Your task to perform on an android device: open device folders in google photos Image 0: 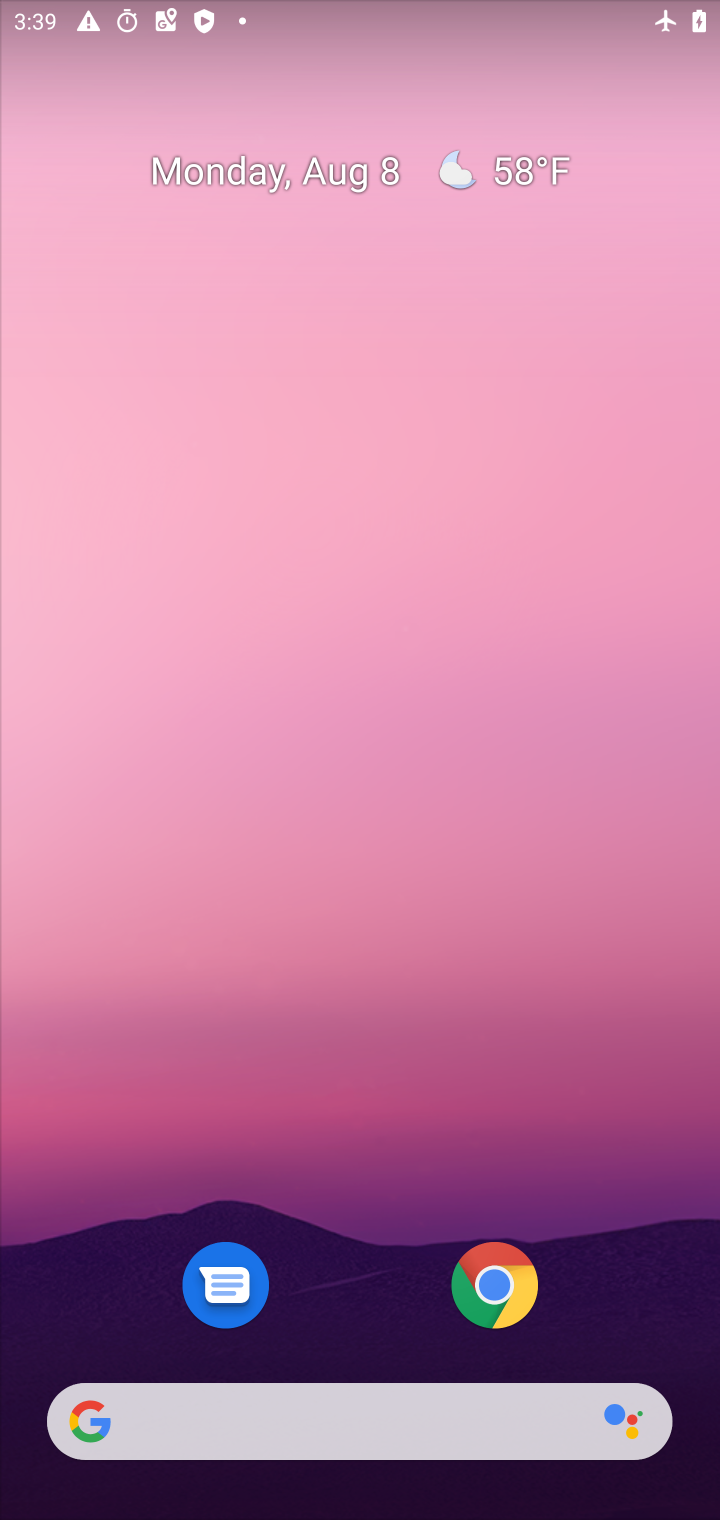
Step 0: drag from (412, 1100) to (495, 64)
Your task to perform on an android device: open device folders in google photos Image 1: 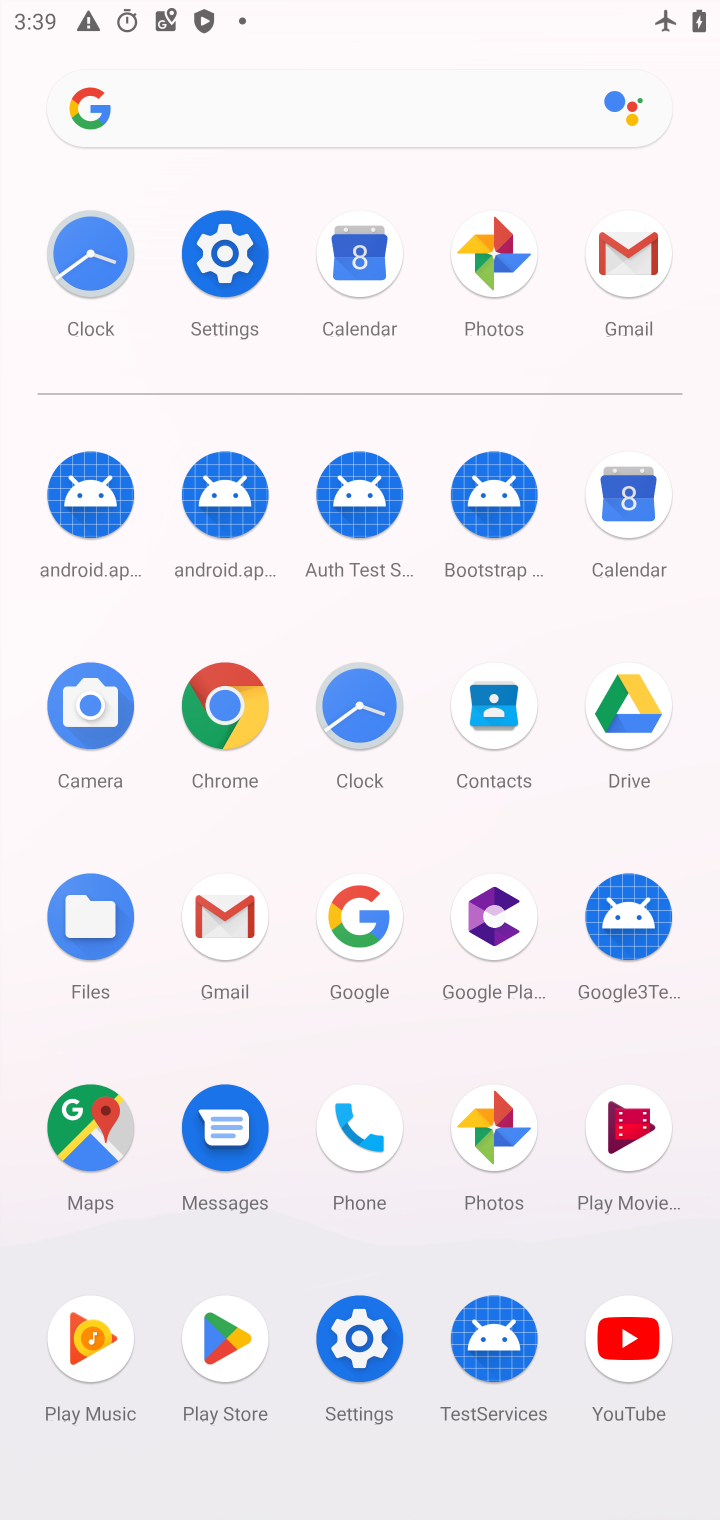
Step 1: click (515, 1122)
Your task to perform on an android device: open device folders in google photos Image 2: 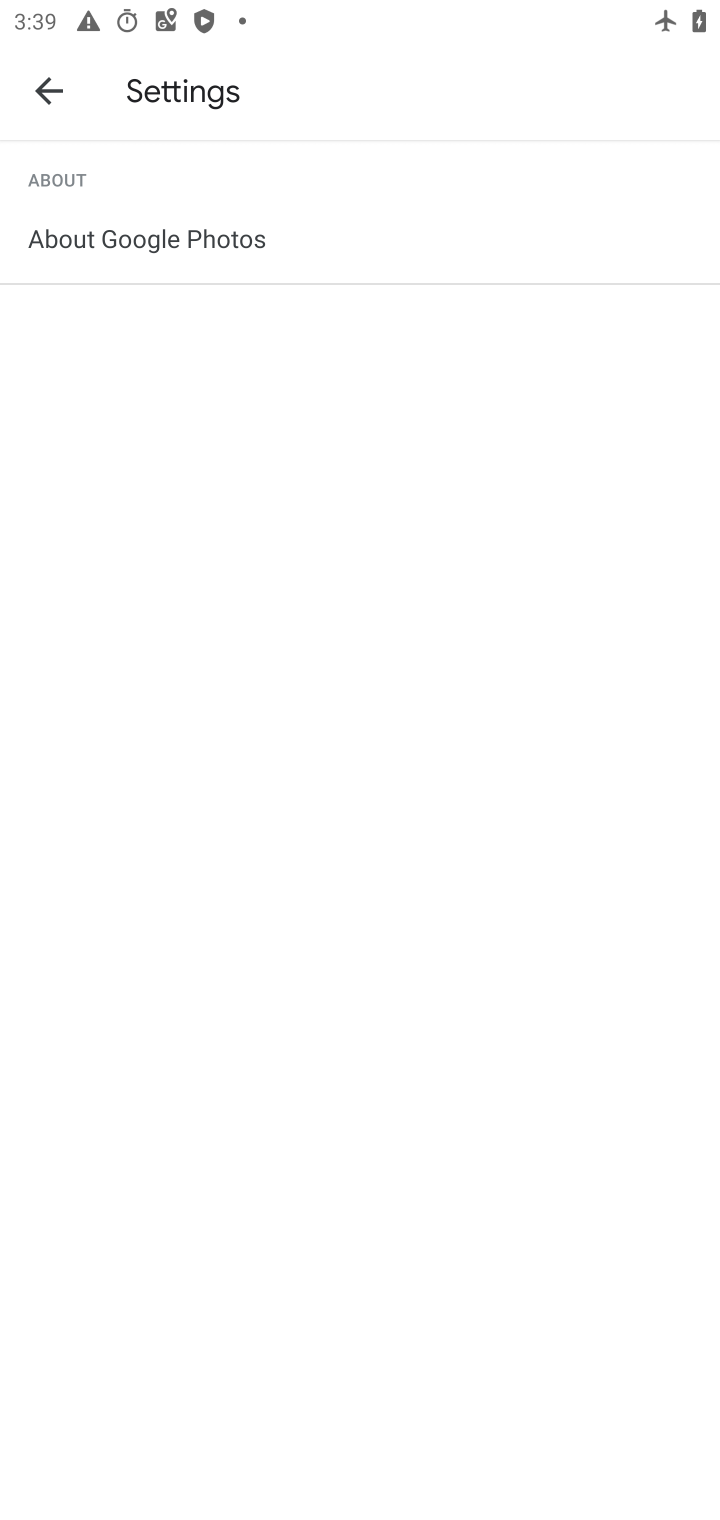
Step 2: click (38, 91)
Your task to perform on an android device: open device folders in google photos Image 3: 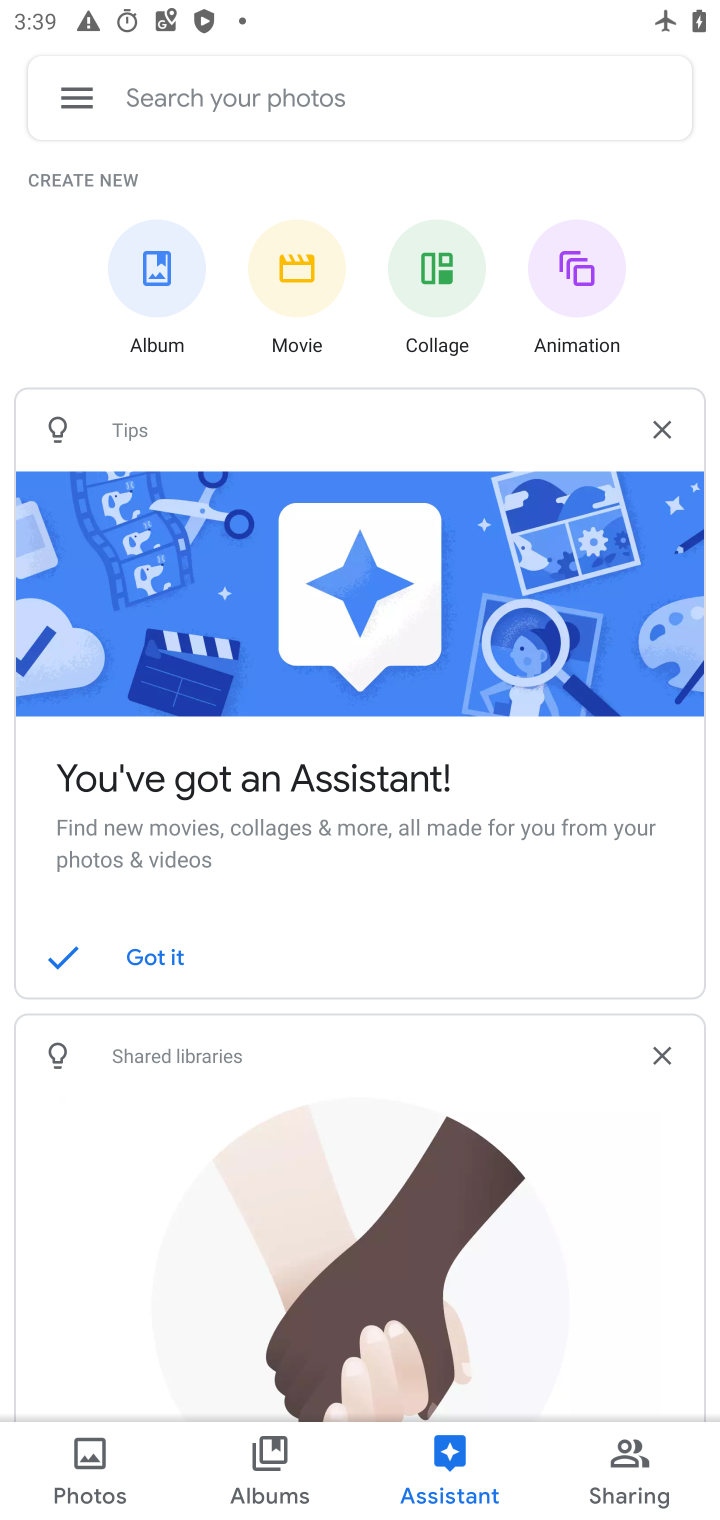
Step 3: click (74, 109)
Your task to perform on an android device: open device folders in google photos Image 4: 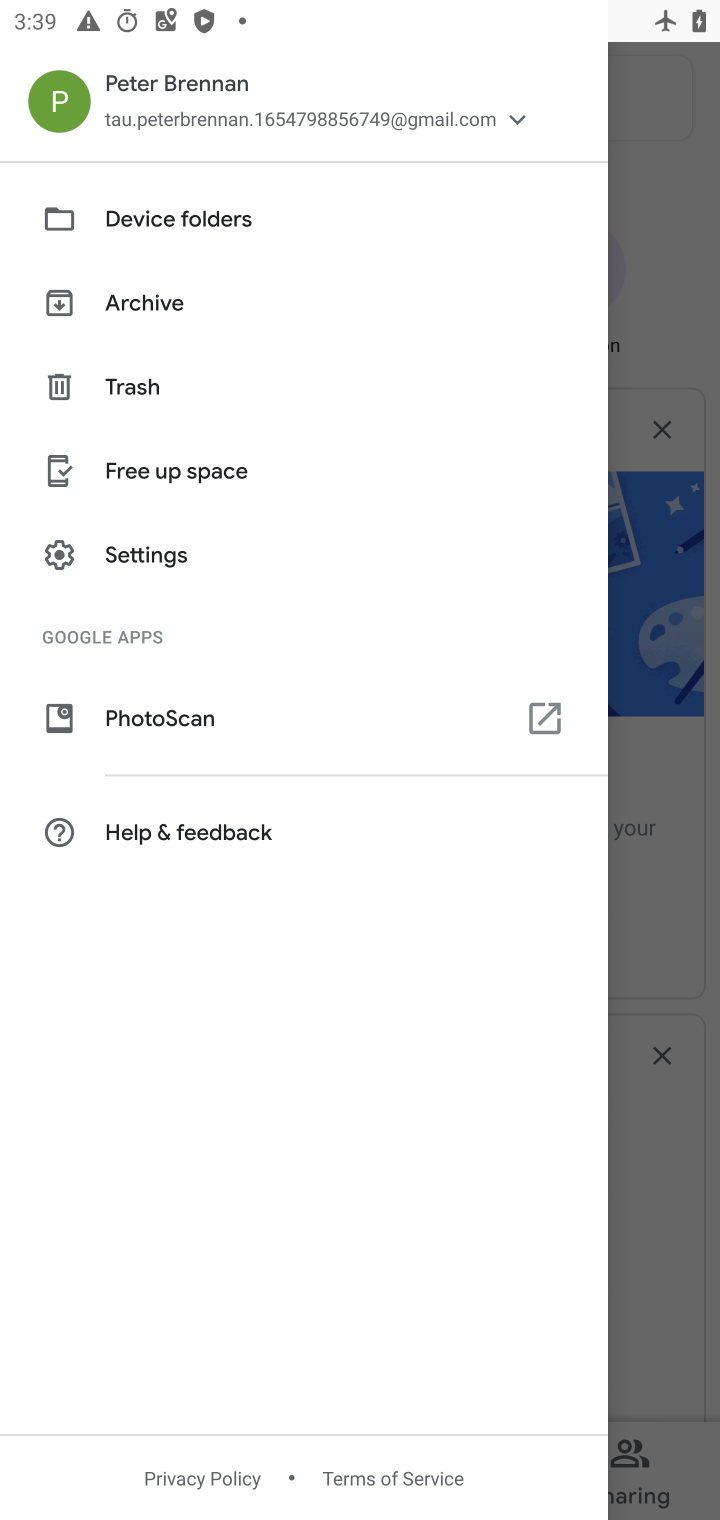
Step 4: click (146, 204)
Your task to perform on an android device: open device folders in google photos Image 5: 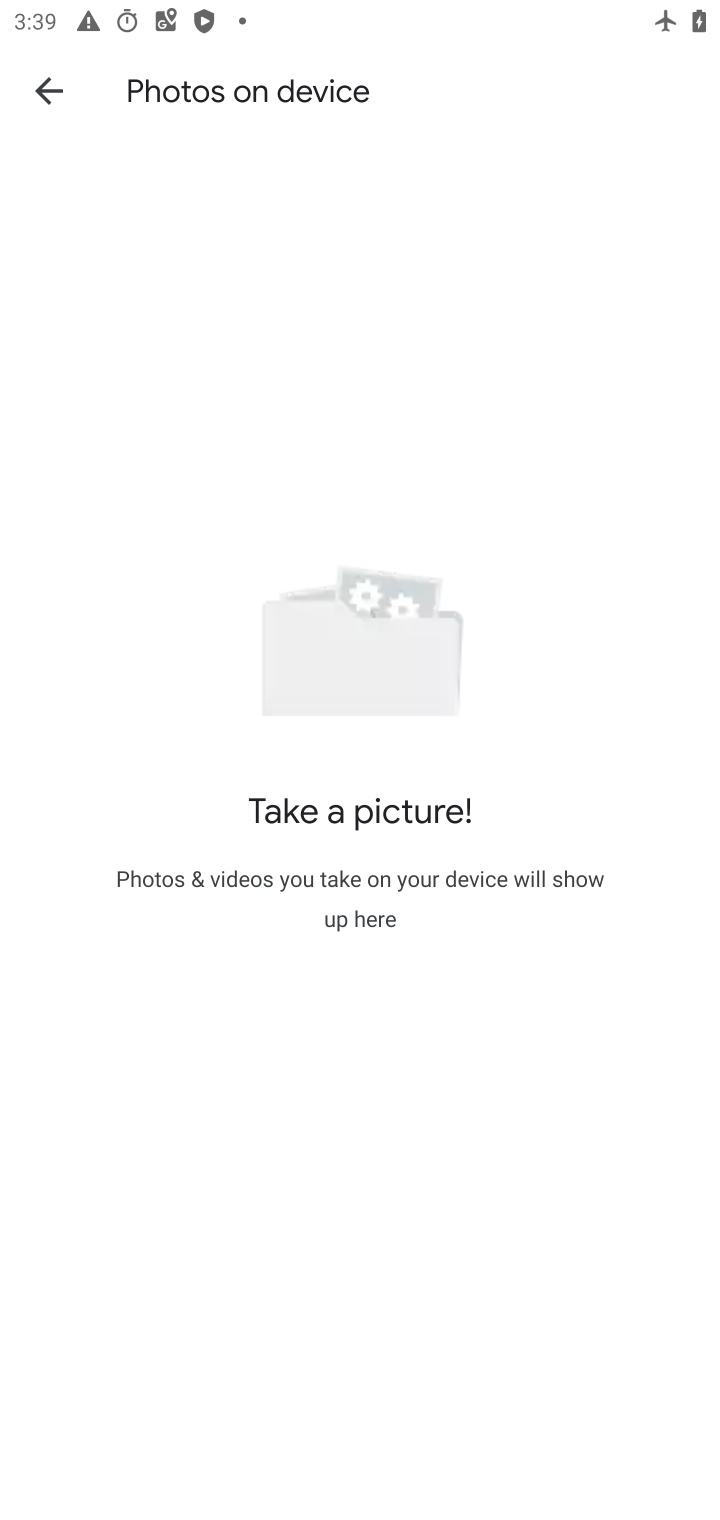
Step 5: task complete